Your task to perform on an android device: Go to wifi settings Image 0: 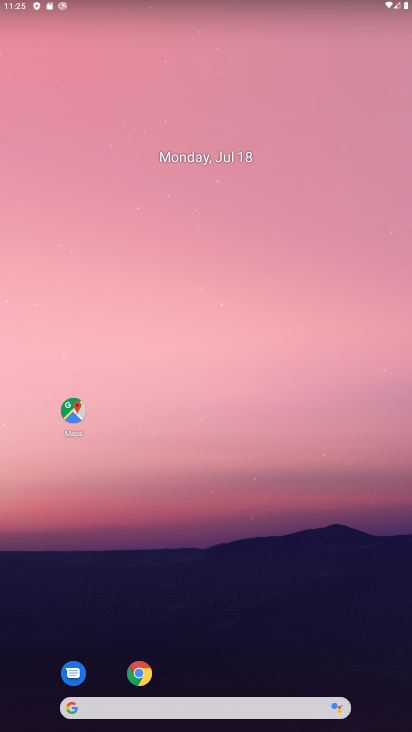
Step 0: drag from (204, 12) to (230, 530)
Your task to perform on an android device: Go to wifi settings Image 1: 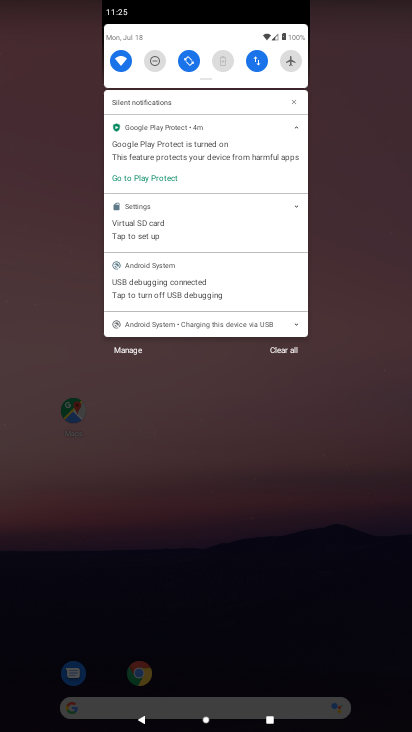
Step 1: click (117, 62)
Your task to perform on an android device: Go to wifi settings Image 2: 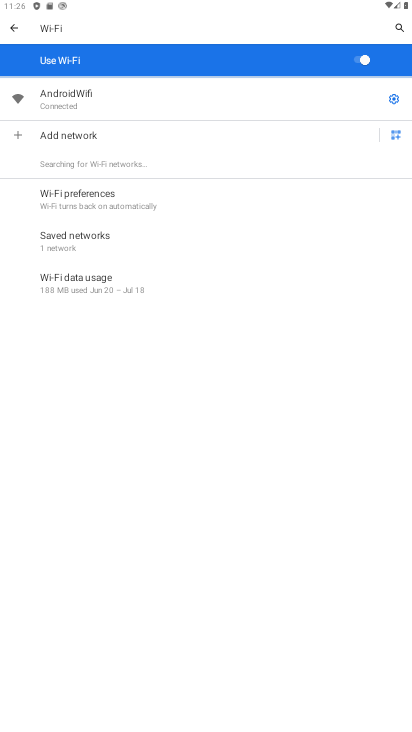
Step 2: task complete